Your task to perform on an android device: check the backup settings in the google photos Image 0: 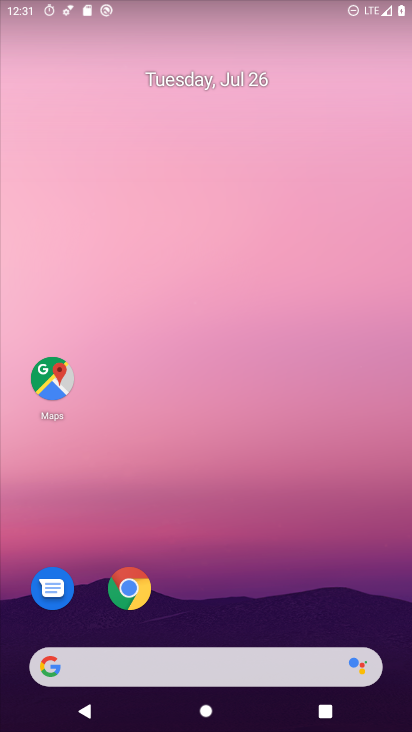
Step 0: drag from (205, 636) to (249, 168)
Your task to perform on an android device: check the backup settings in the google photos Image 1: 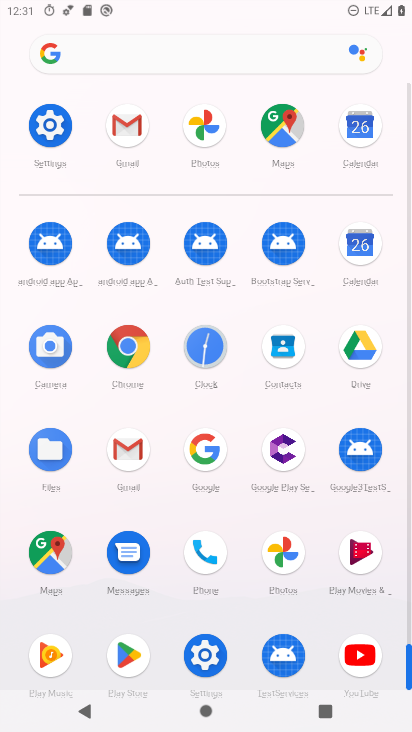
Step 1: click (275, 560)
Your task to perform on an android device: check the backup settings in the google photos Image 2: 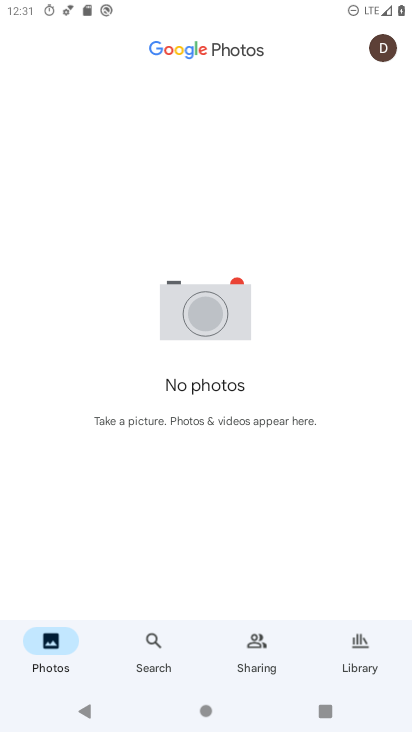
Step 2: click (382, 46)
Your task to perform on an android device: check the backup settings in the google photos Image 3: 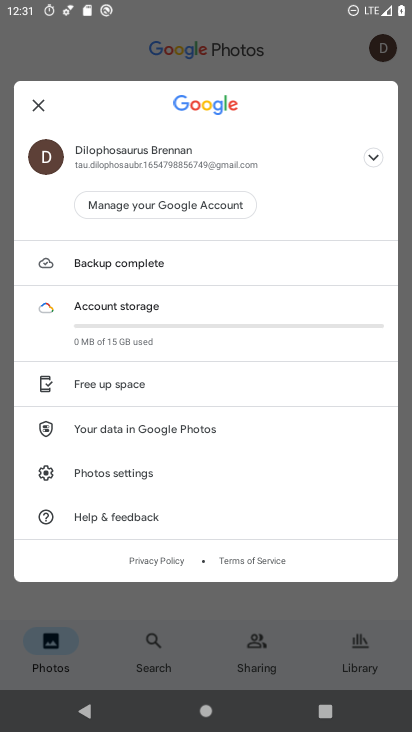
Step 3: click (234, 214)
Your task to perform on an android device: check the backup settings in the google photos Image 4: 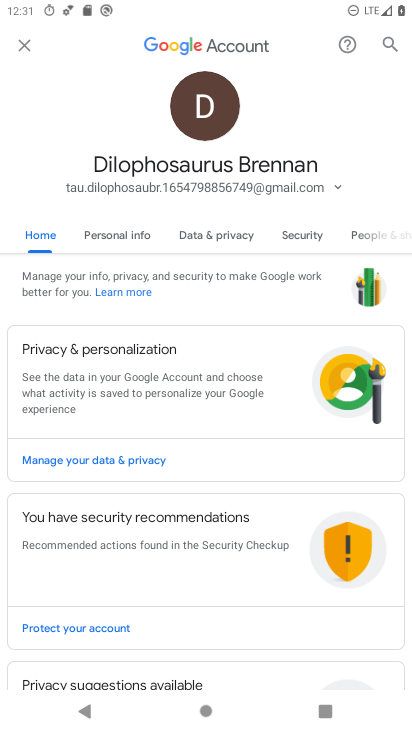
Step 4: press back button
Your task to perform on an android device: check the backup settings in the google photos Image 5: 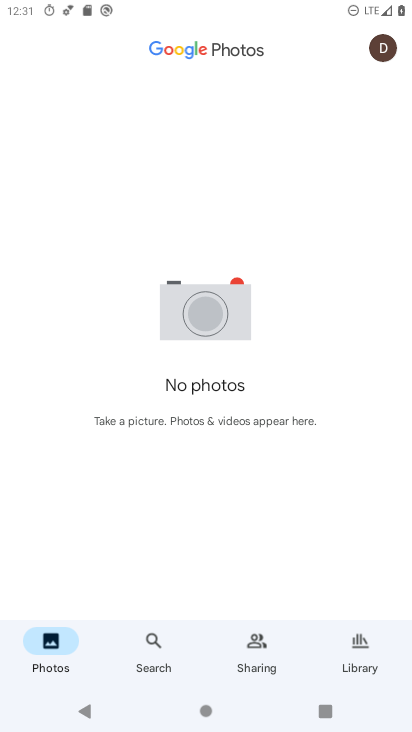
Step 5: click (378, 60)
Your task to perform on an android device: check the backup settings in the google photos Image 6: 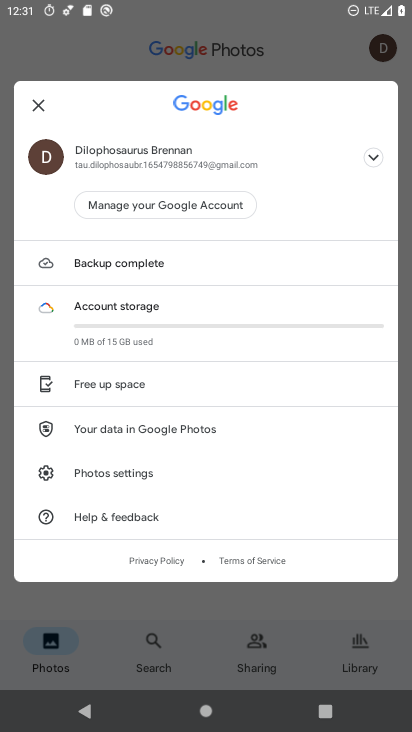
Step 6: click (170, 270)
Your task to perform on an android device: check the backup settings in the google photos Image 7: 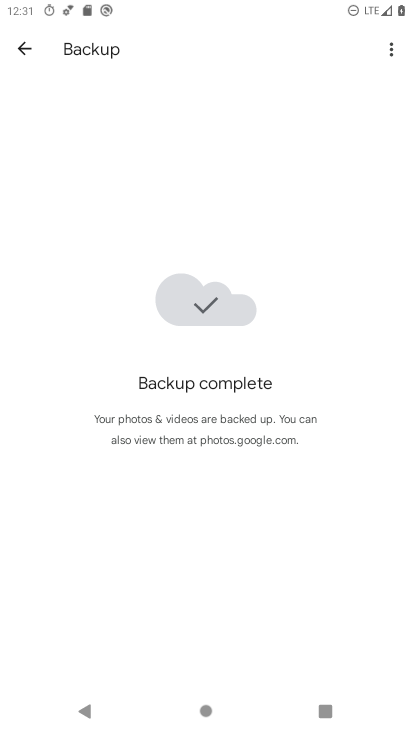
Step 7: click (385, 45)
Your task to perform on an android device: check the backup settings in the google photos Image 8: 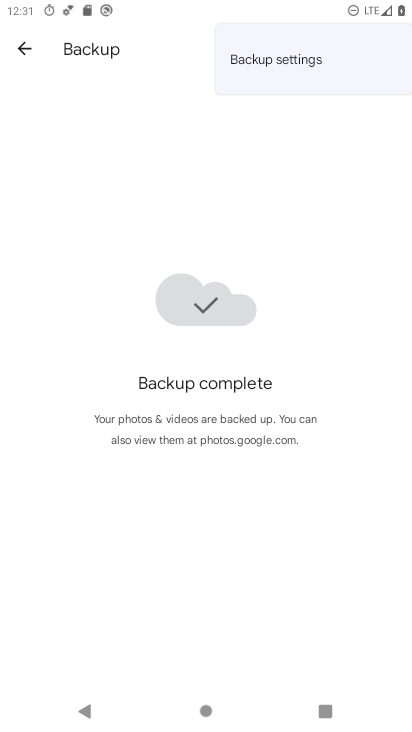
Step 8: click (354, 59)
Your task to perform on an android device: check the backup settings in the google photos Image 9: 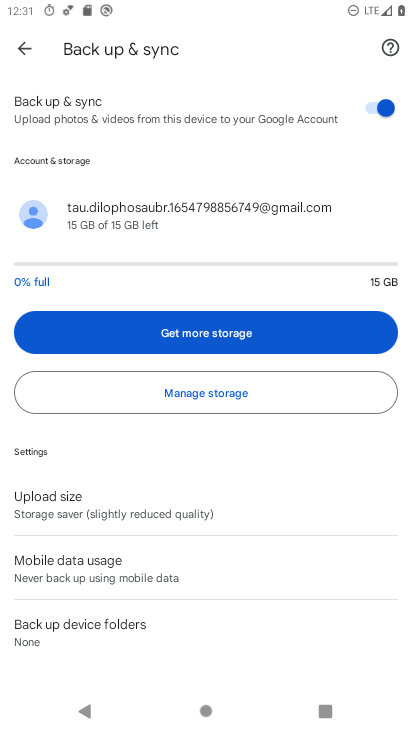
Step 9: task complete